Your task to perform on an android device: When is my next meeting? Image 0: 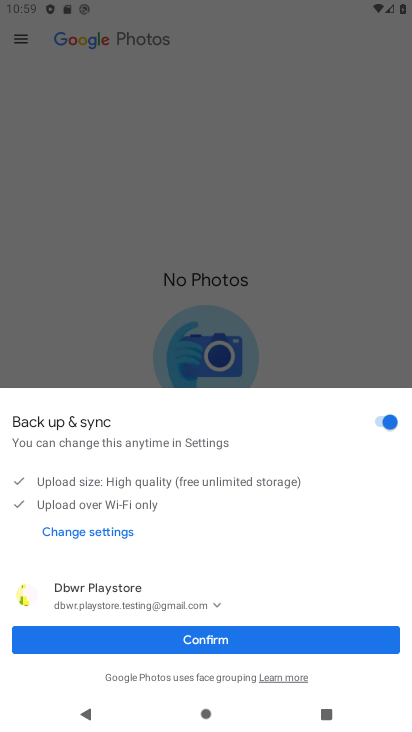
Step 0: press back button
Your task to perform on an android device: When is my next meeting? Image 1: 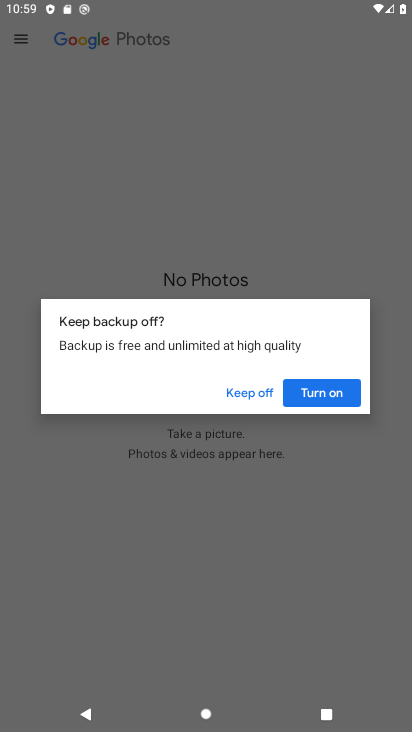
Step 1: press back button
Your task to perform on an android device: When is my next meeting? Image 2: 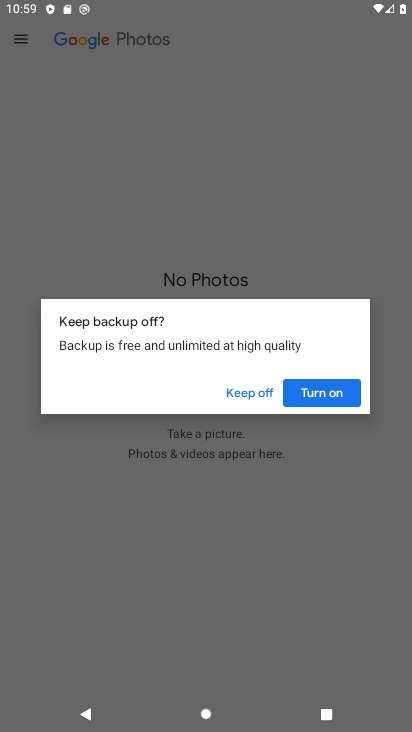
Step 2: press home button
Your task to perform on an android device: When is my next meeting? Image 3: 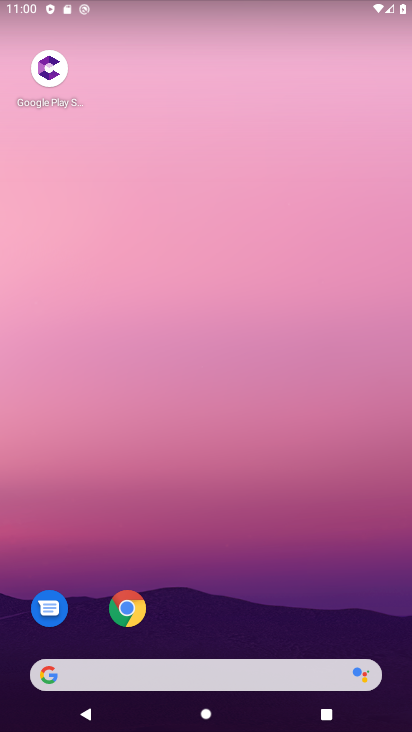
Step 3: drag from (114, 580) to (256, 25)
Your task to perform on an android device: When is my next meeting? Image 4: 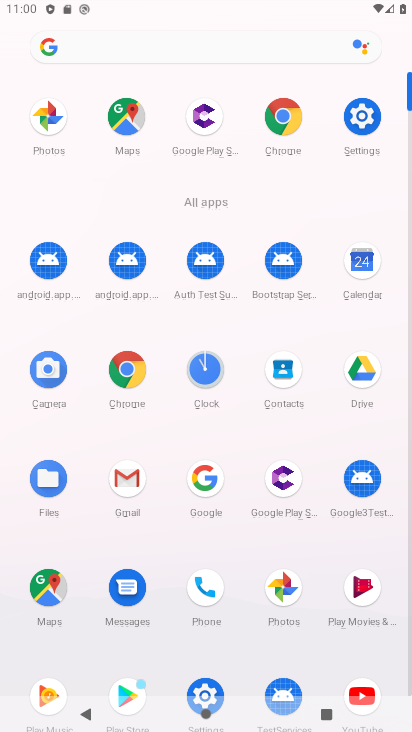
Step 4: click (362, 258)
Your task to perform on an android device: When is my next meeting? Image 5: 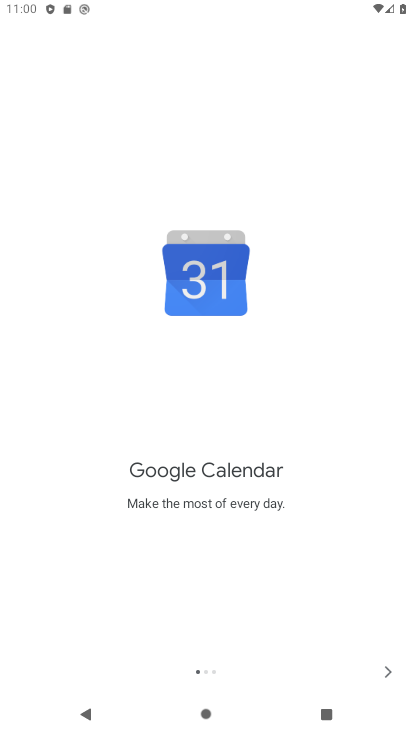
Step 5: click (393, 681)
Your task to perform on an android device: When is my next meeting? Image 6: 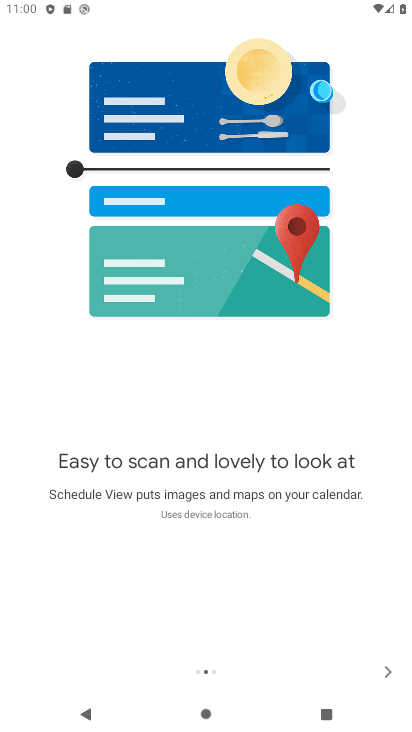
Step 6: click (392, 680)
Your task to perform on an android device: When is my next meeting? Image 7: 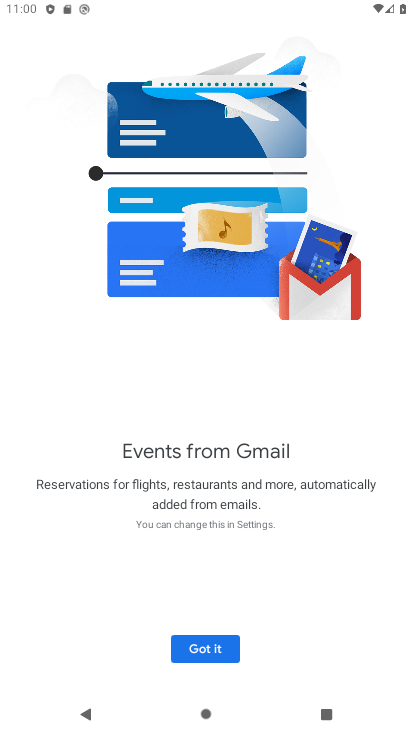
Step 7: click (195, 647)
Your task to perform on an android device: When is my next meeting? Image 8: 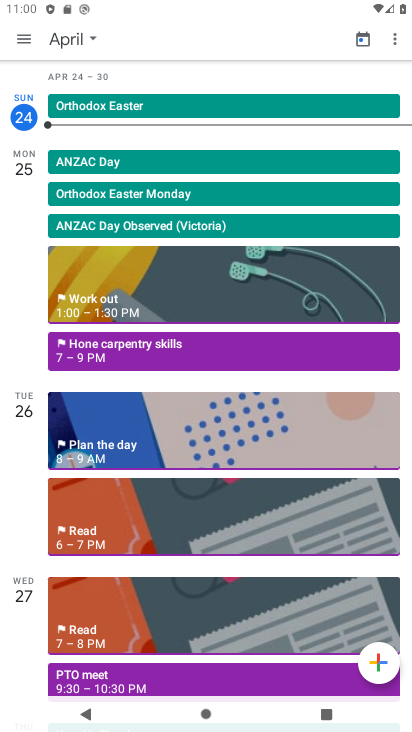
Step 8: drag from (222, 202) to (178, 547)
Your task to perform on an android device: When is my next meeting? Image 9: 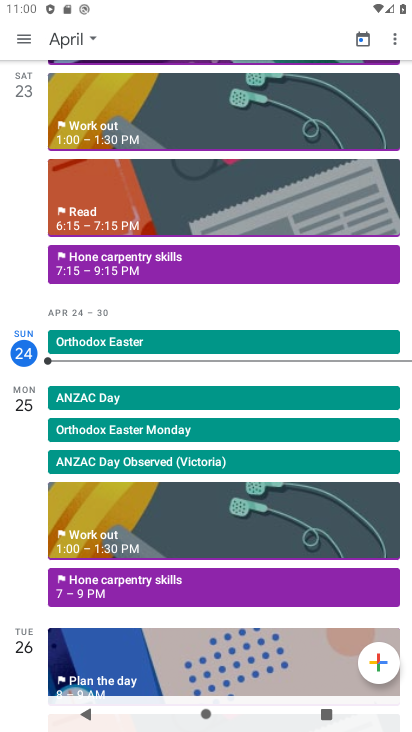
Step 9: drag from (138, 620) to (259, 85)
Your task to perform on an android device: When is my next meeting? Image 10: 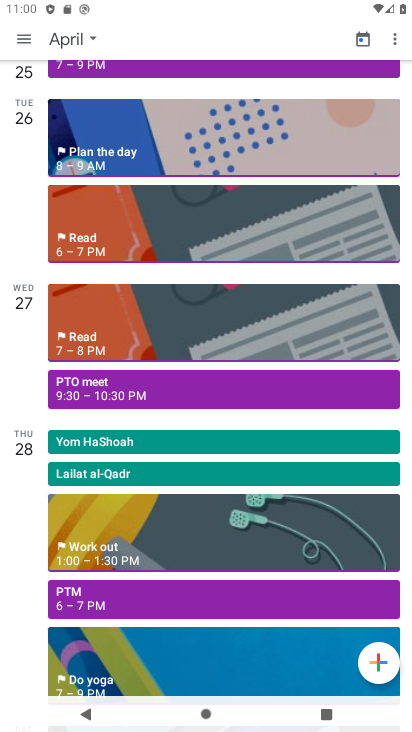
Step 10: click (111, 385)
Your task to perform on an android device: When is my next meeting? Image 11: 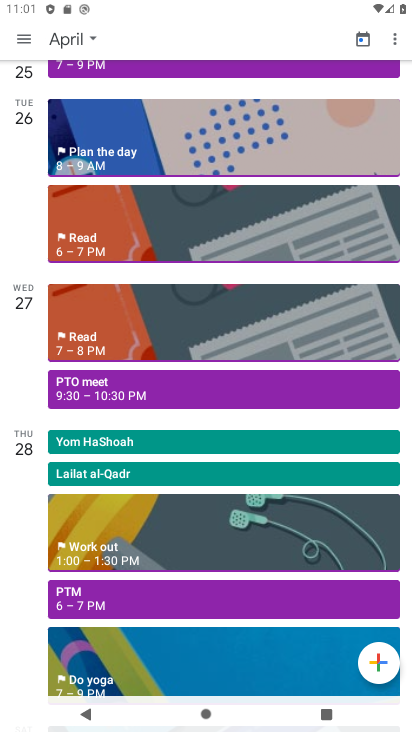
Step 11: click (112, 391)
Your task to perform on an android device: When is my next meeting? Image 12: 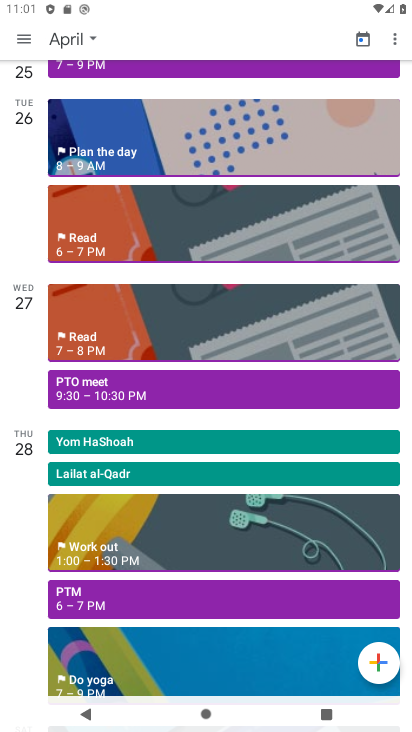
Step 12: click (95, 391)
Your task to perform on an android device: When is my next meeting? Image 13: 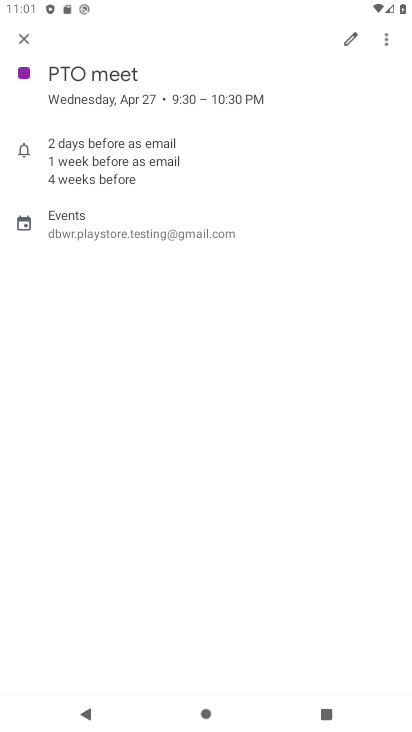
Step 13: task complete